Your task to perform on an android device: read, delete, or share a saved page in the chrome app Image 0: 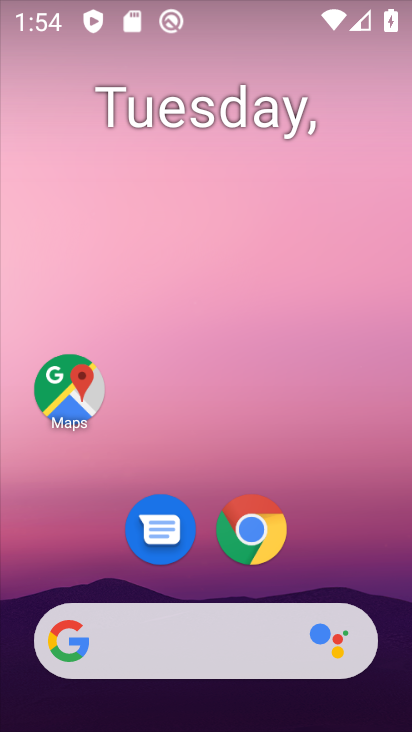
Step 0: click (269, 538)
Your task to perform on an android device: read, delete, or share a saved page in the chrome app Image 1: 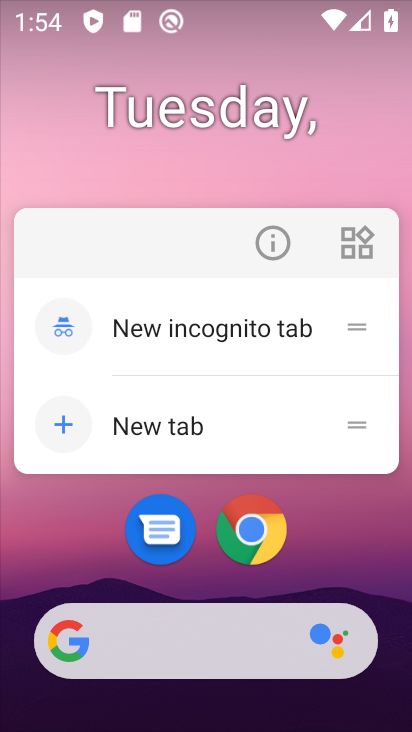
Step 1: click (269, 538)
Your task to perform on an android device: read, delete, or share a saved page in the chrome app Image 2: 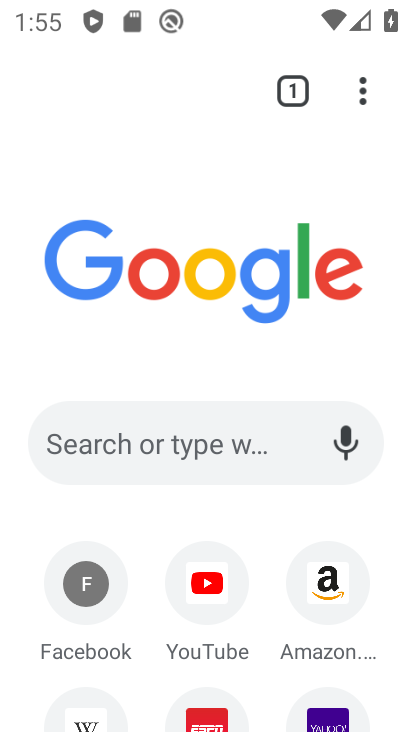
Step 2: click (357, 101)
Your task to perform on an android device: read, delete, or share a saved page in the chrome app Image 3: 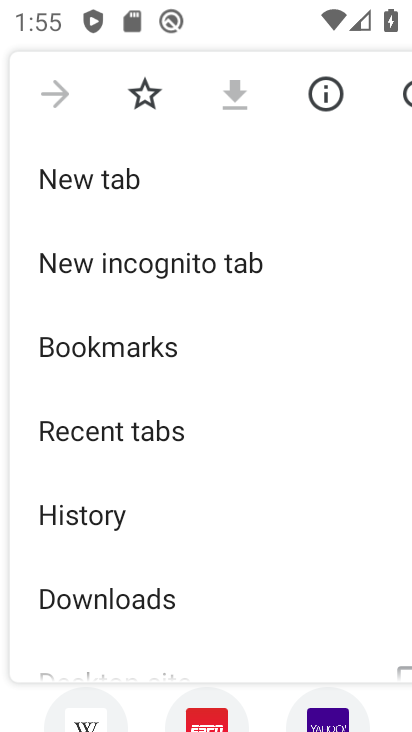
Step 3: drag from (148, 594) to (115, 271)
Your task to perform on an android device: read, delete, or share a saved page in the chrome app Image 4: 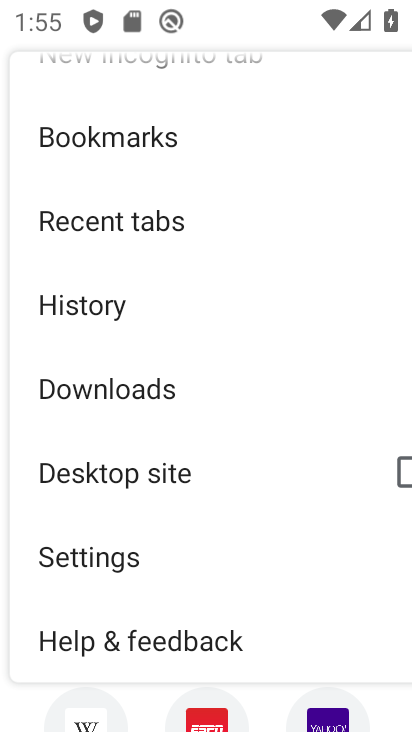
Step 4: click (149, 403)
Your task to perform on an android device: read, delete, or share a saved page in the chrome app Image 5: 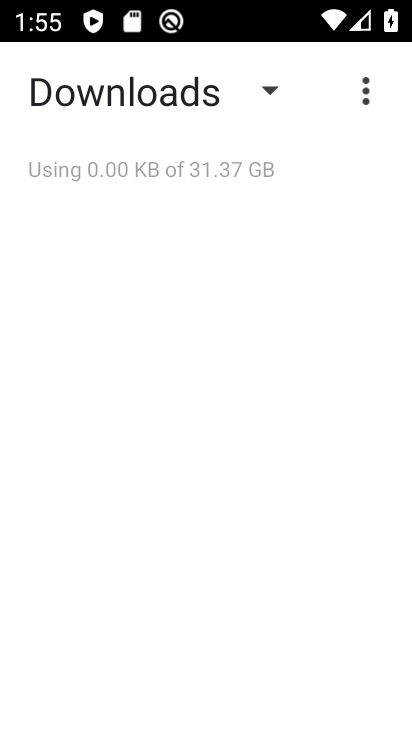
Step 5: click (257, 88)
Your task to perform on an android device: read, delete, or share a saved page in the chrome app Image 6: 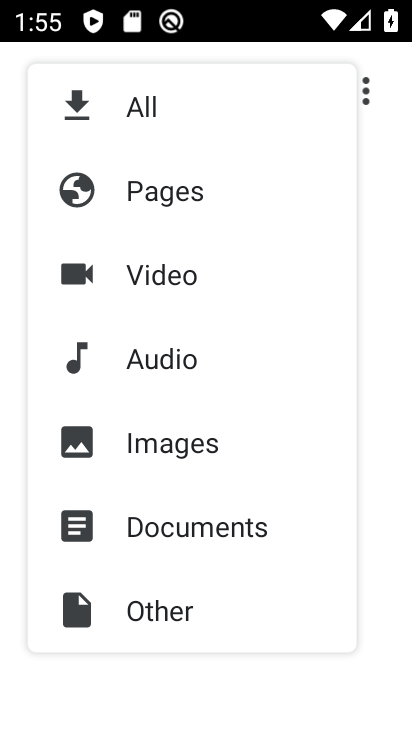
Step 6: click (180, 195)
Your task to perform on an android device: read, delete, or share a saved page in the chrome app Image 7: 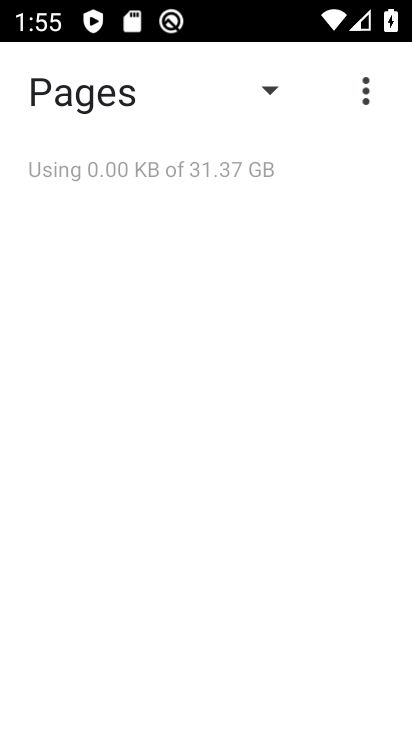
Step 7: task complete